Your task to perform on an android device: Go to network settings Image 0: 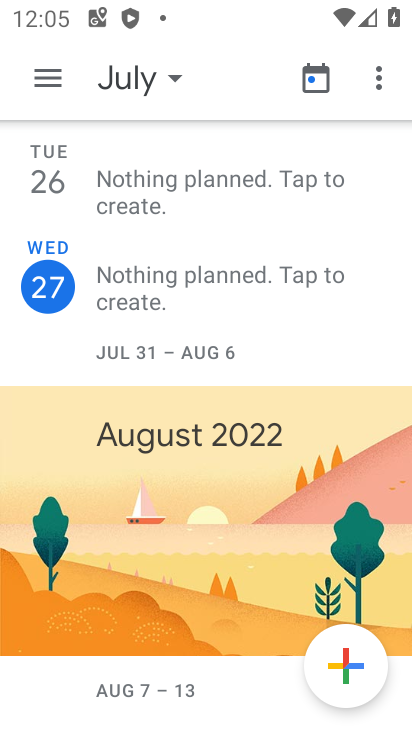
Step 0: press back button
Your task to perform on an android device: Go to network settings Image 1: 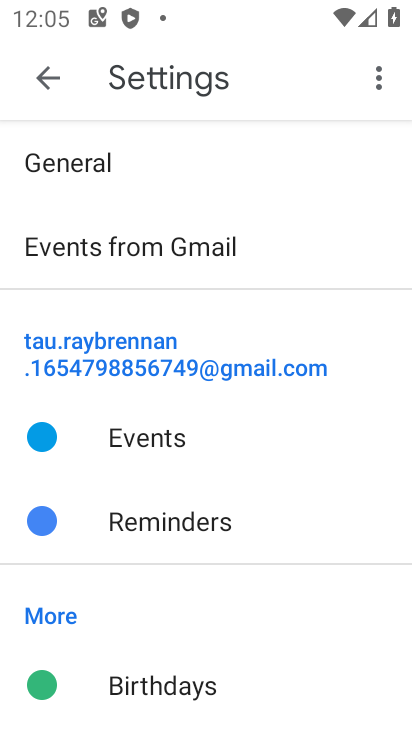
Step 1: press back button
Your task to perform on an android device: Go to network settings Image 2: 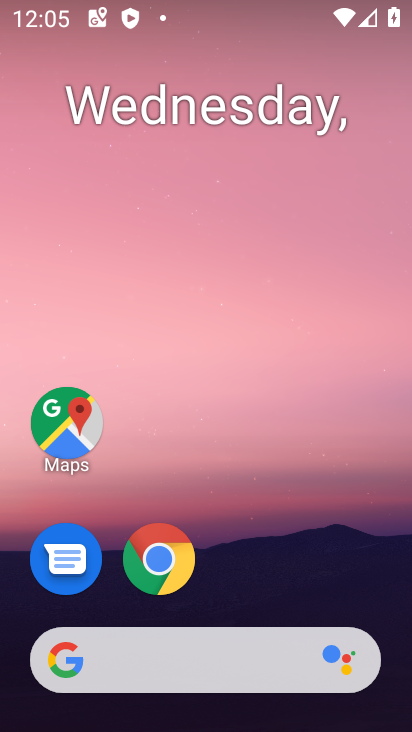
Step 2: drag from (263, 584) to (288, 21)
Your task to perform on an android device: Go to network settings Image 3: 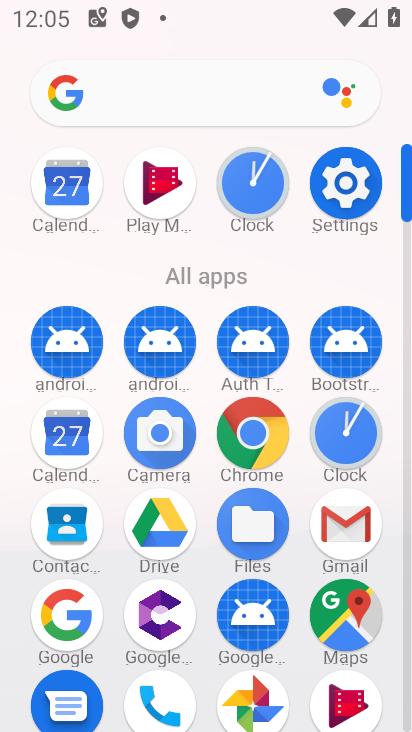
Step 3: click (358, 185)
Your task to perform on an android device: Go to network settings Image 4: 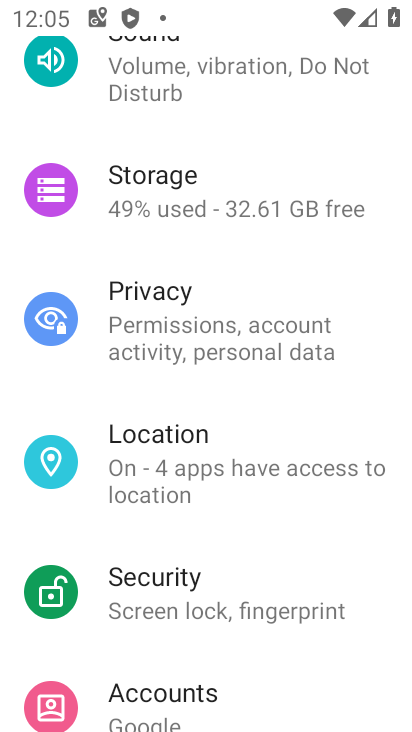
Step 4: drag from (244, 173) to (164, 731)
Your task to perform on an android device: Go to network settings Image 5: 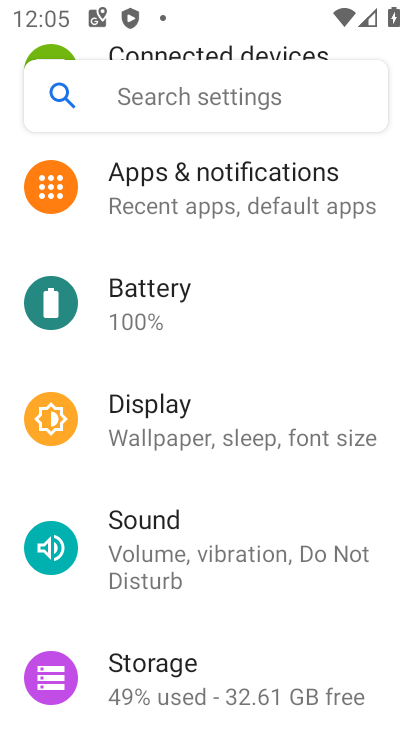
Step 5: drag from (202, 268) to (175, 727)
Your task to perform on an android device: Go to network settings Image 6: 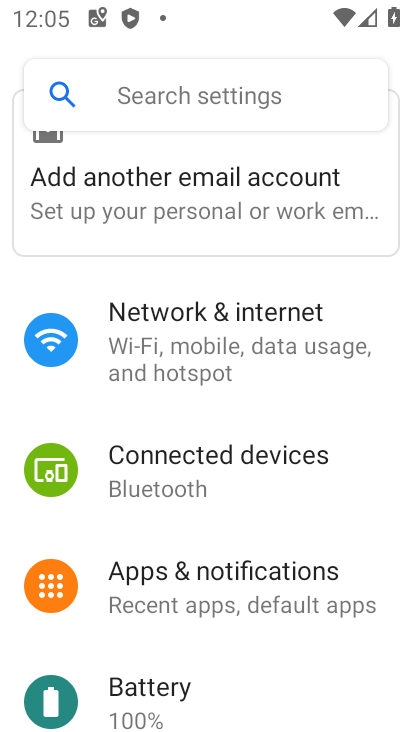
Step 6: click (194, 337)
Your task to perform on an android device: Go to network settings Image 7: 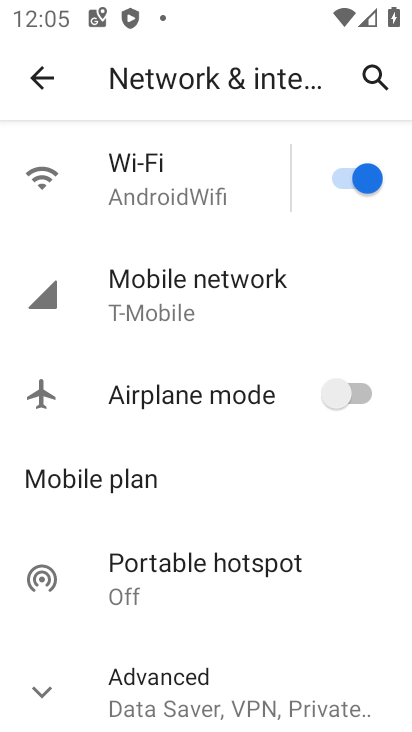
Step 7: task complete